Your task to perform on an android device: Go to settings Image 0: 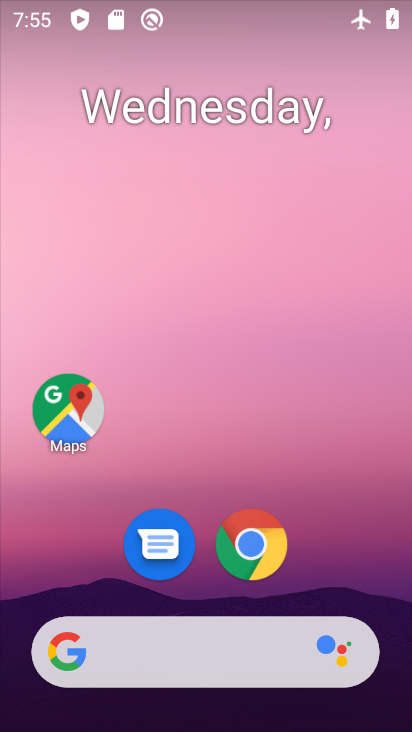
Step 0: drag from (198, 713) to (201, 153)
Your task to perform on an android device: Go to settings Image 1: 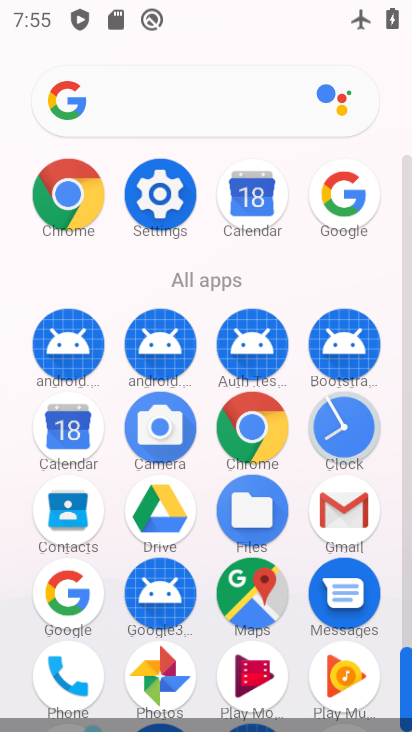
Step 1: click (165, 194)
Your task to perform on an android device: Go to settings Image 2: 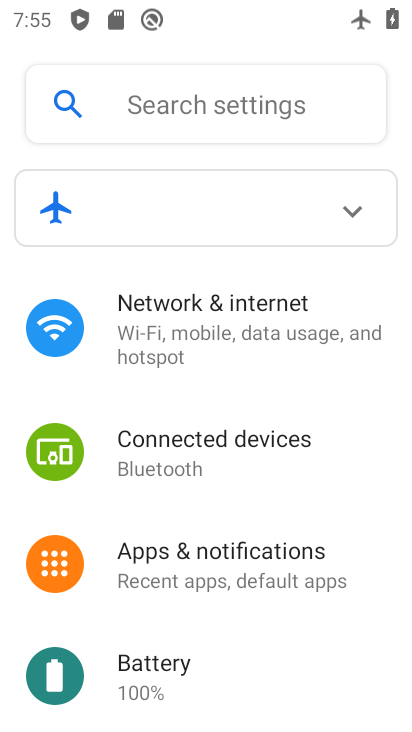
Step 2: task complete